Your task to perform on an android device: open sync settings in chrome Image 0: 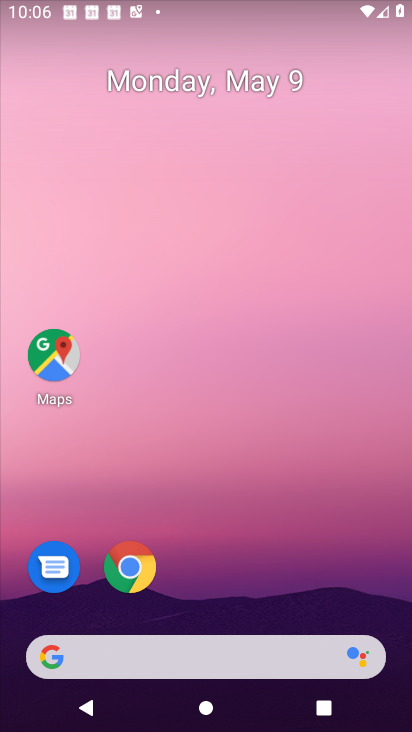
Step 0: click (135, 570)
Your task to perform on an android device: open sync settings in chrome Image 1: 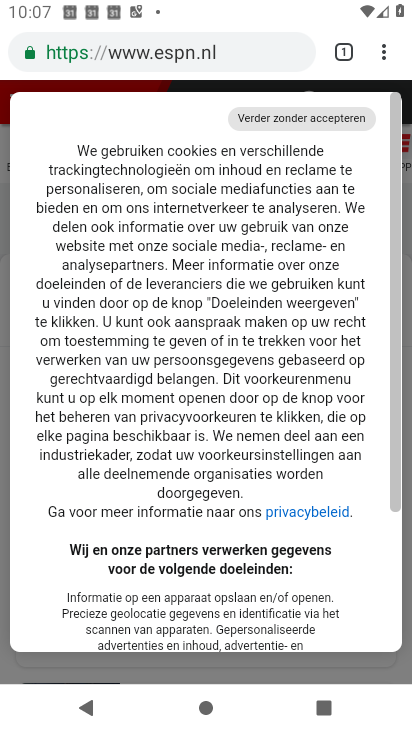
Step 1: click (378, 53)
Your task to perform on an android device: open sync settings in chrome Image 2: 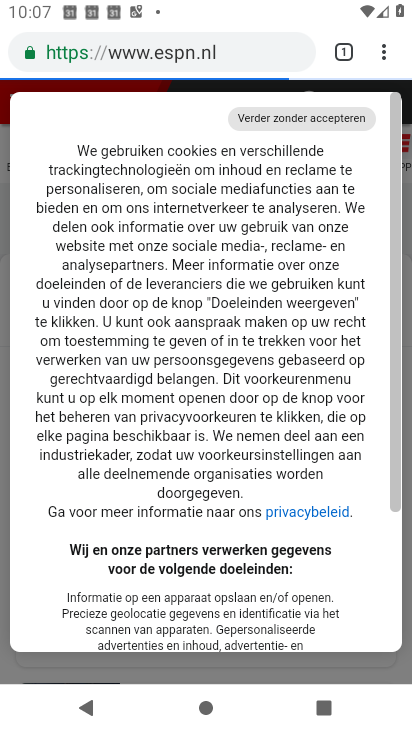
Step 2: drag from (377, 56) to (236, 608)
Your task to perform on an android device: open sync settings in chrome Image 3: 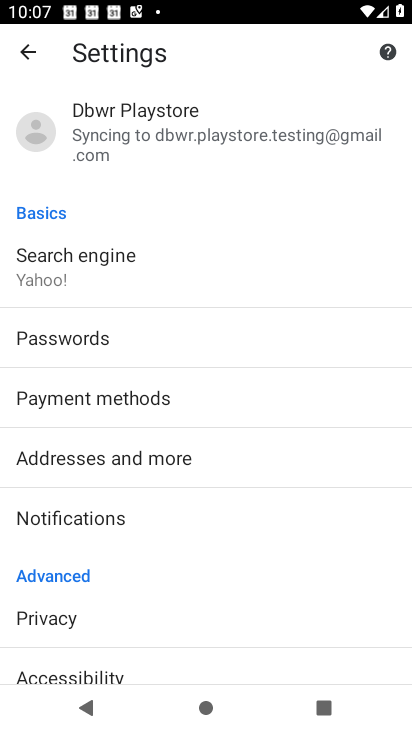
Step 3: click (156, 116)
Your task to perform on an android device: open sync settings in chrome Image 4: 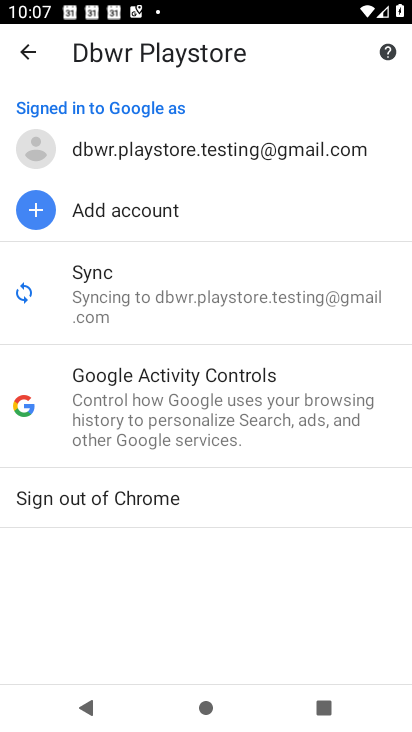
Step 4: click (109, 290)
Your task to perform on an android device: open sync settings in chrome Image 5: 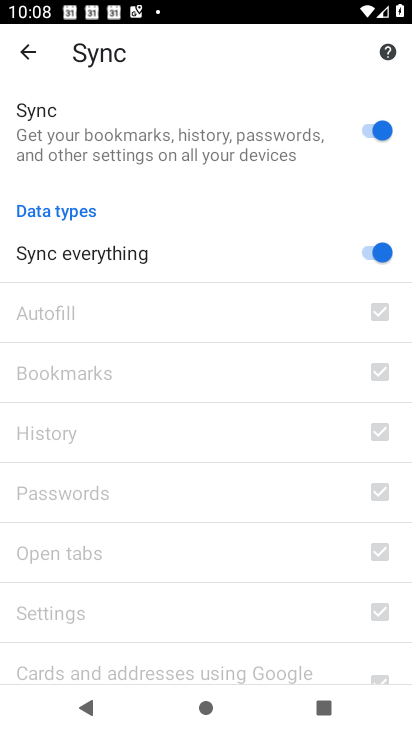
Step 5: task complete